Your task to perform on an android device: add a contact in the contacts app Image 0: 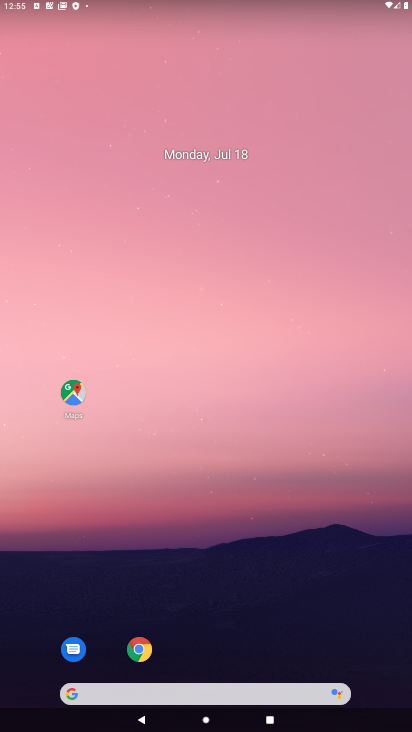
Step 0: drag from (367, 647) to (344, 104)
Your task to perform on an android device: add a contact in the contacts app Image 1: 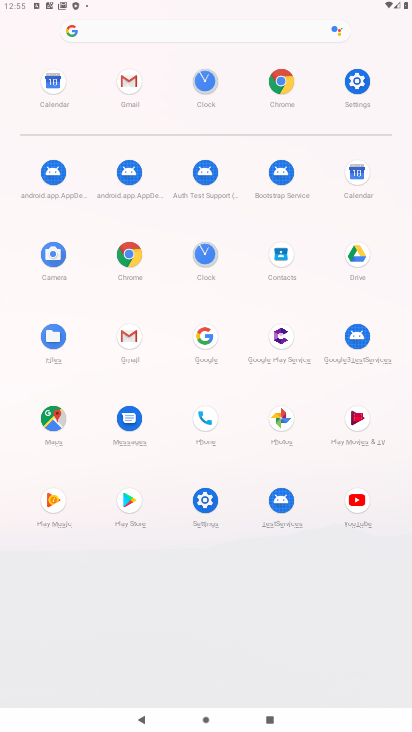
Step 1: click (280, 252)
Your task to perform on an android device: add a contact in the contacts app Image 2: 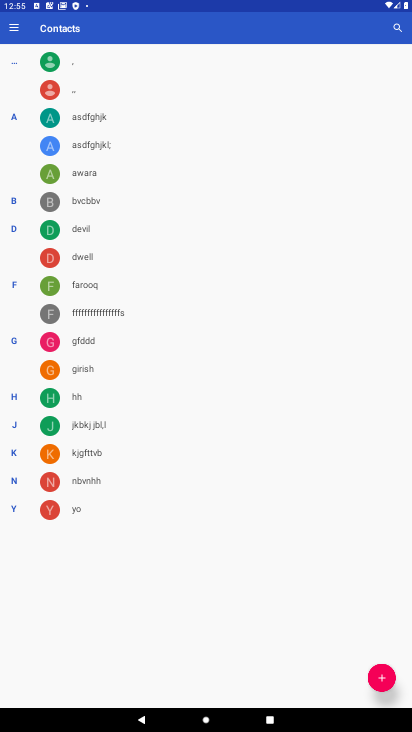
Step 2: click (380, 675)
Your task to perform on an android device: add a contact in the contacts app Image 3: 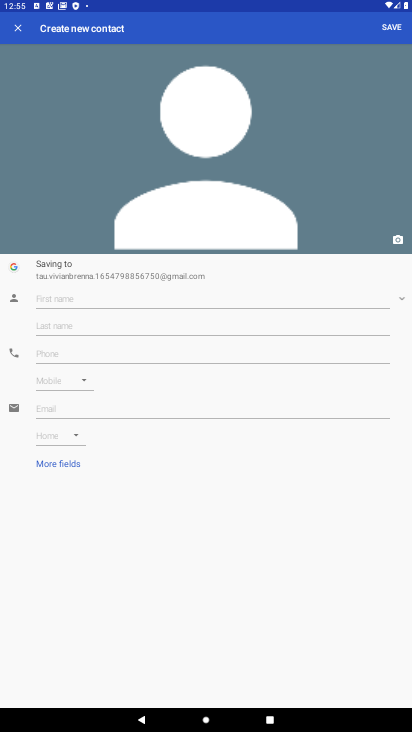
Step 3: click (82, 300)
Your task to perform on an android device: add a contact in the contacts app Image 4: 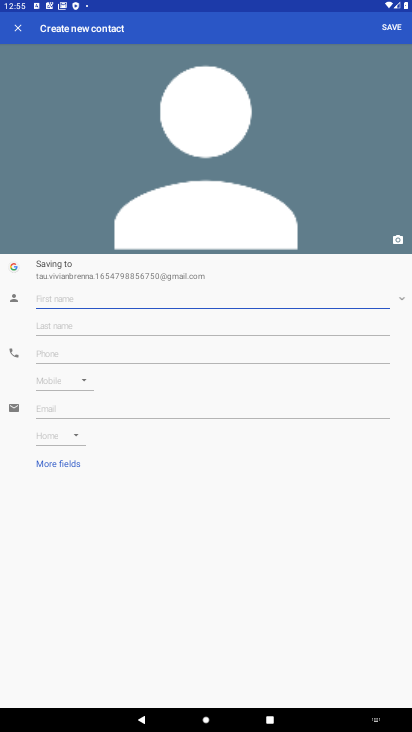
Step 4: type "lkjhgiuytrnb"
Your task to perform on an android device: add a contact in the contacts app Image 5: 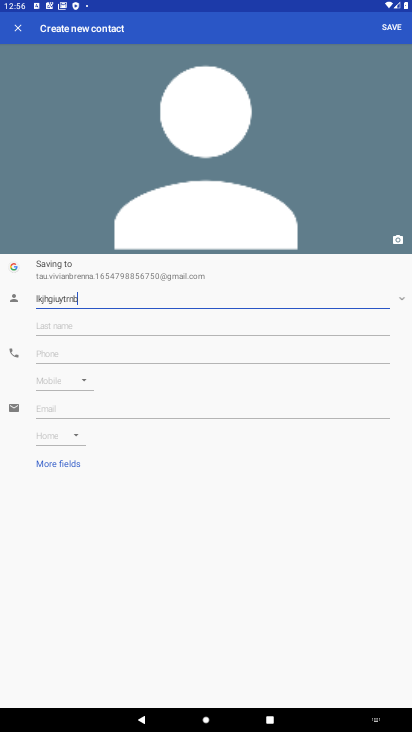
Step 5: click (67, 355)
Your task to perform on an android device: add a contact in the contacts app Image 6: 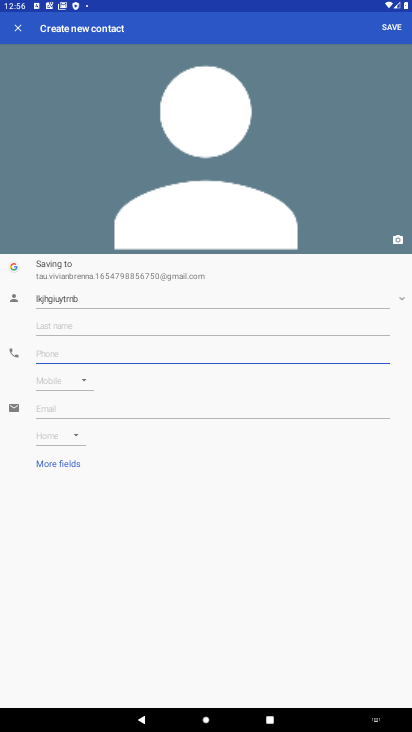
Step 6: type "0987654345"
Your task to perform on an android device: add a contact in the contacts app Image 7: 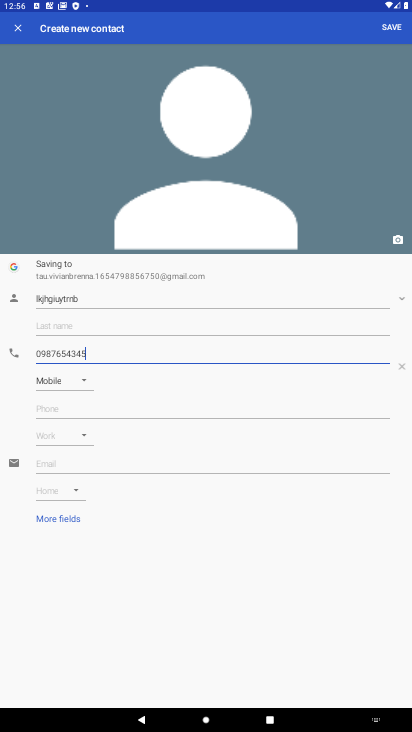
Step 7: click (83, 381)
Your task to perform on an android device: add a contact in the contacts app Image 8: 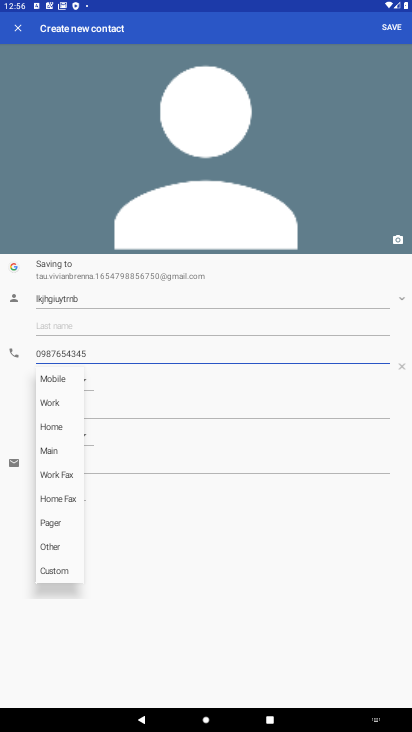
Step 8: click (53, 401)
Your task to perform on an android device: add a contact in the contacts app Image 9: 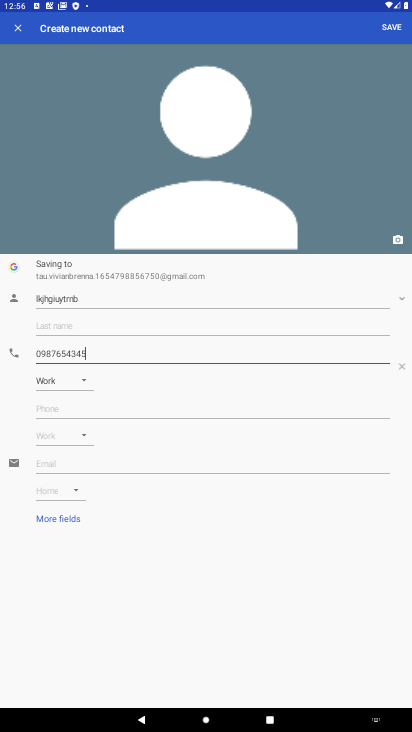
Step 9: click (386, 26)
Your task to perform on an android device: add a contact in the contacts app Image 10: 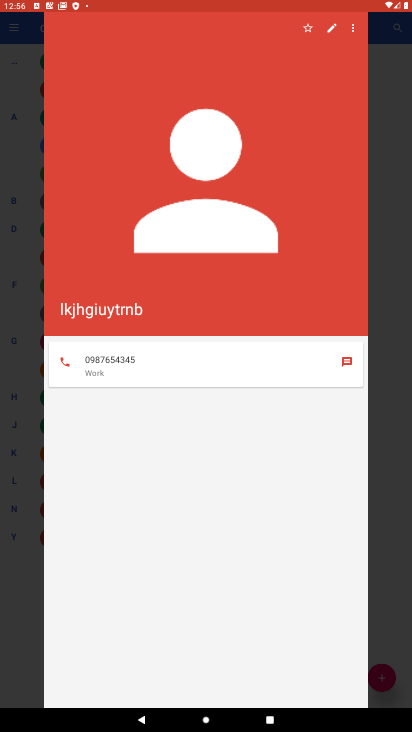
Step 10: task complete